Your task to perform on an android device: Is it going to rain tomorrow? Image 0: 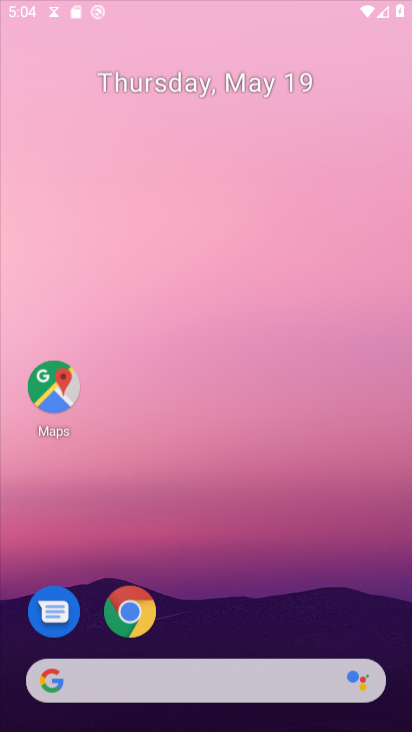
Step 0: click (337, 1)
Your task to perform on an android device: Is it going to rain tomorrow? Image 1: 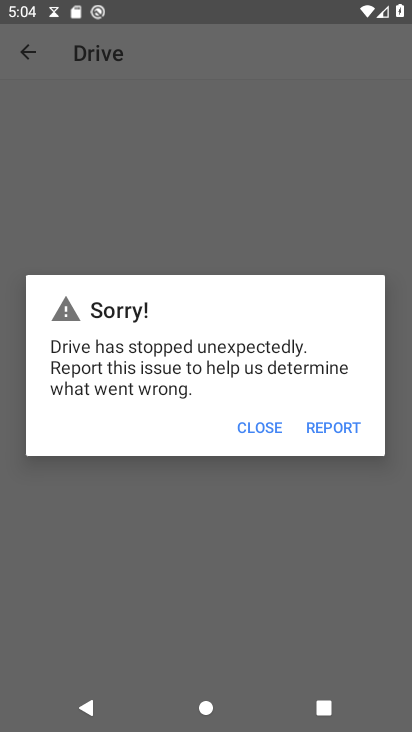
Step 1: drag from (295, 662) to (397, 272)
Your task to perform on an android device: Is it going to rain tomorrow? Image 2: 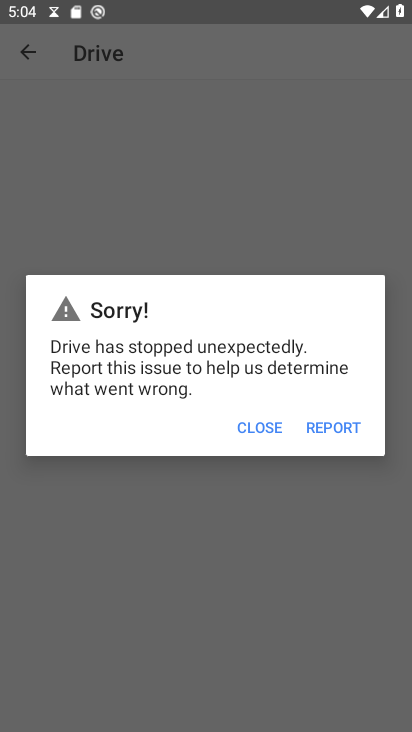
Step 2: press home button
Your task to perform on an android device: Is it going to rain tomorrow? Image 3: 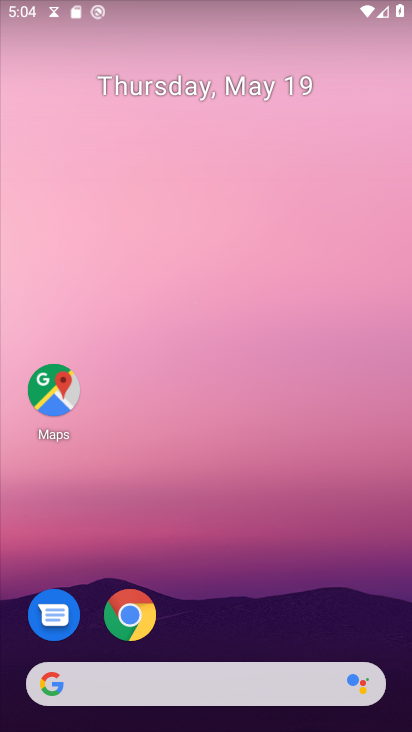
Step 3: drag from (266, 660) to (250, 707)
Your task to perform on an android device: Is it going to rain tomorrow? Image 4: 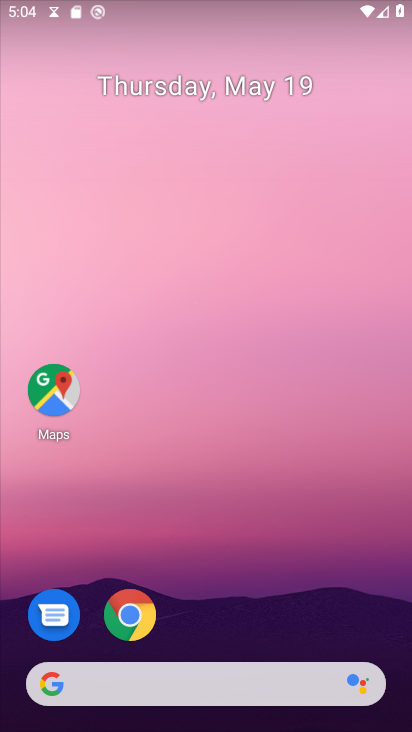
Step 4: drag from (42, 310) to (407, 129)
Your task to perform on an android device: Is it going to rain tomorrow? Image 5: 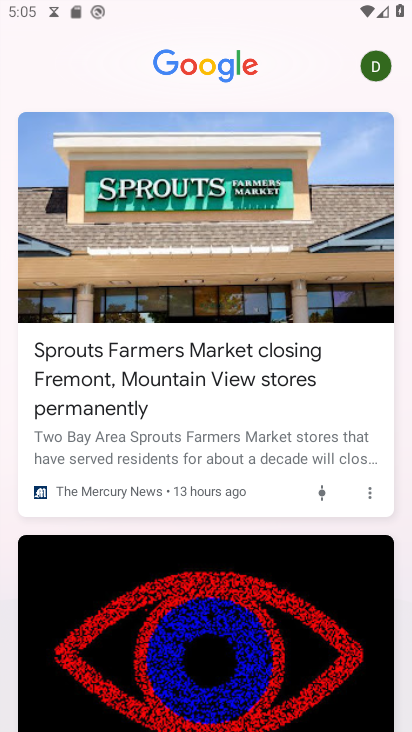
Step 5: drag from (226, 100) to (227, 708)
Your task to perform on an android device: Is it going to rain tomorrow? Image 6: 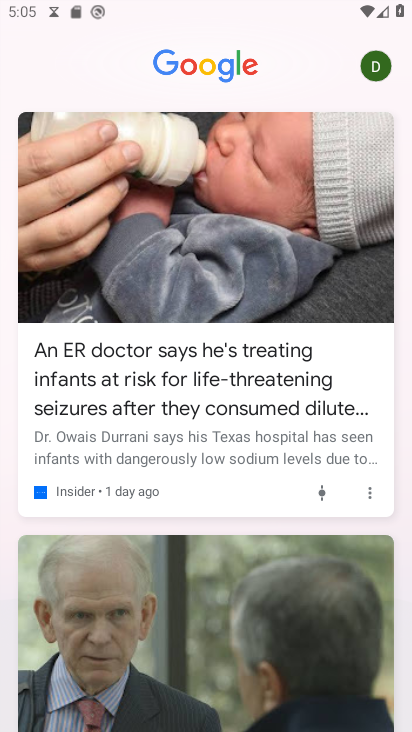
Step 6: drag from (394, 327) to (13, 397)
Your task to perform on an android device: Is it going to rain tomorrow? Image 7: 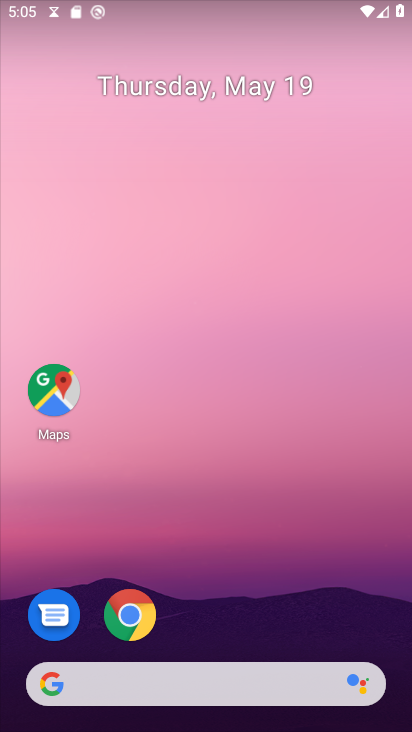
Step 7: click (226, 86)
Your task to perform on an android device: Is it going to rain tomorrow? Image 8: 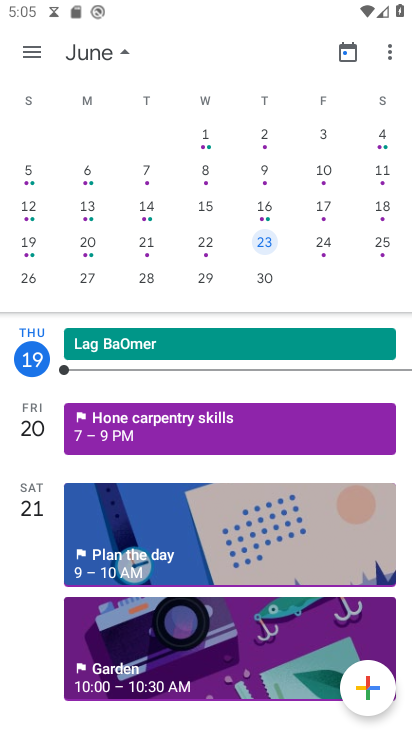
Step 8: task complete